Your task to perform on an android device: Go to Android settings Image 0: 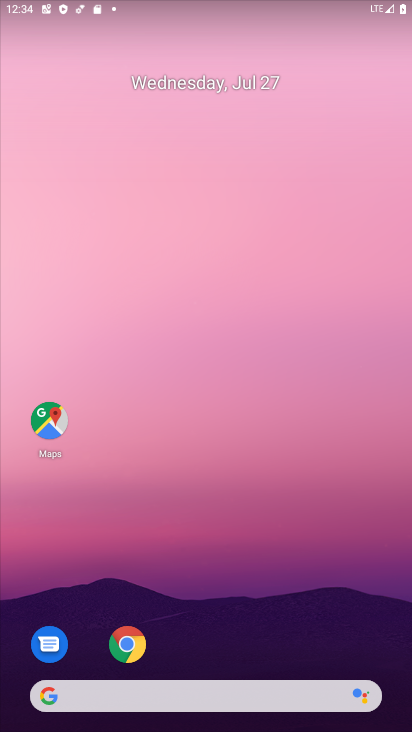
Step 0: drag from (206, 647) to (219, 78)
Your task to perform on an android device: Go to Android settings Image 1: 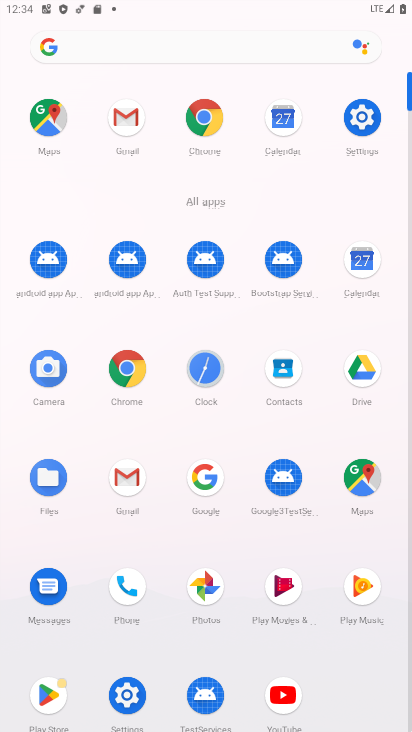
Step 1: click (118, 697)
Your task to perform on an android device: Go to Android settings Image 2: 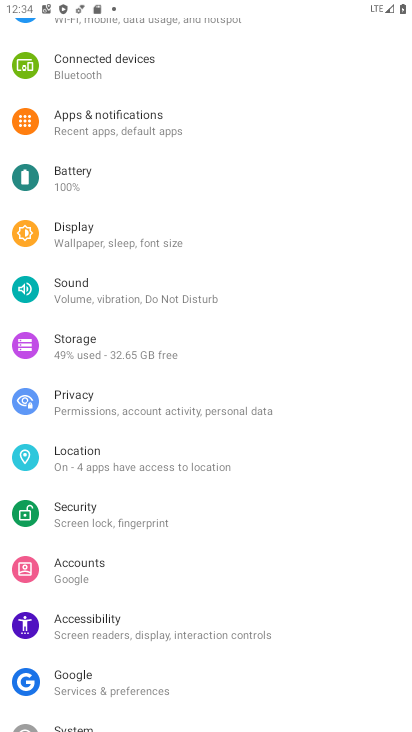
Step 2: drag from (101, 572) to (126, 173)
Your task to perform on an android device: Go to Android settings Image 3: 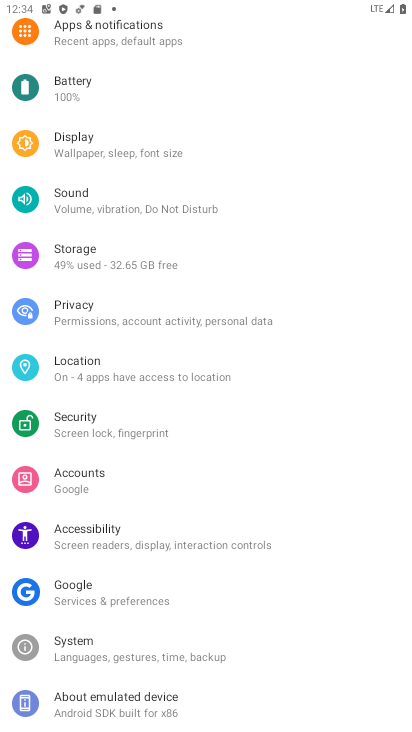
Step 3: click (90, 699)
Your task to perform on an android device: Go to Android settings Image 4: 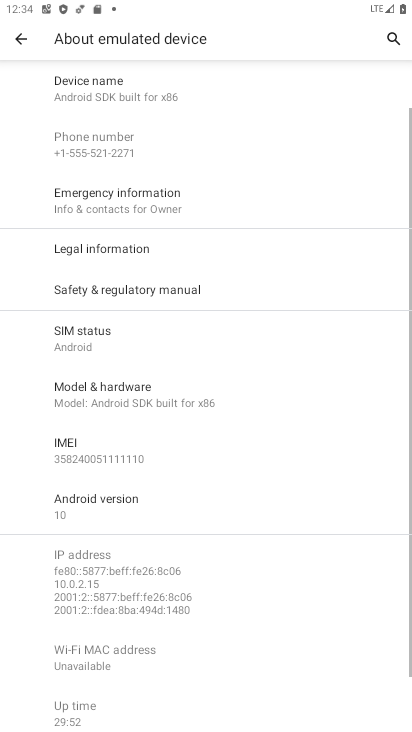
Step 4: click (118, 515)
Your task to perform on an android device: Go to Android settings Image 5: 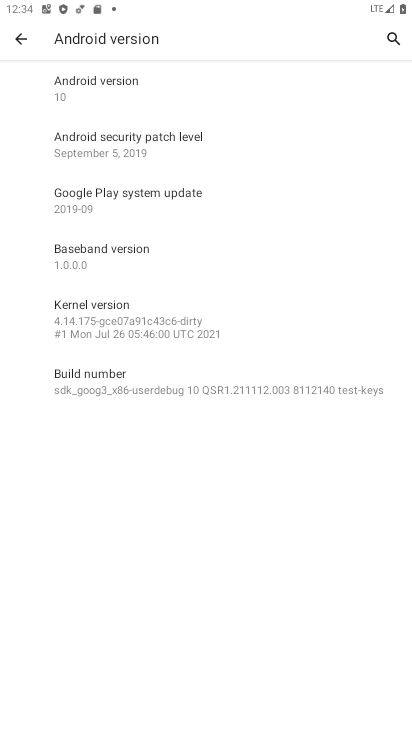
Step 5: task complete